Your task to perform on an android device: change the clock display to show seconds Image 0: 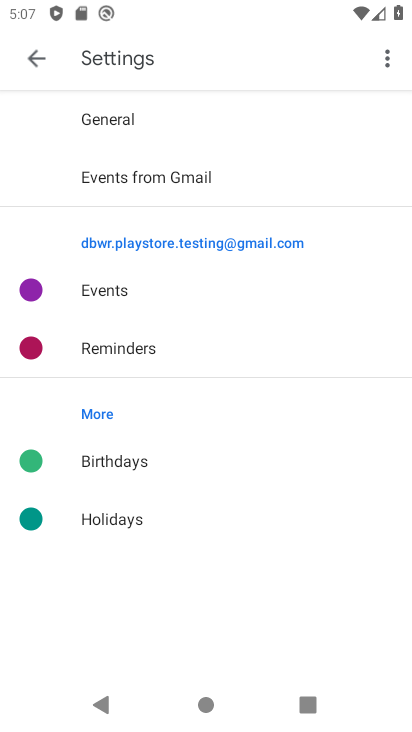
Step 0: press home button
Your task to perform on an android device: change the clock display to show seconds Image 1: 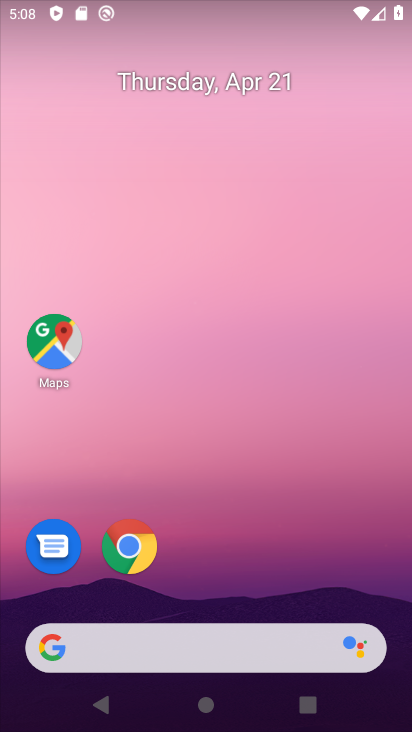
Step 1: drag from (286, 571) to (301, 53)
Your task to perform on an android device: change the clock display to show seconds Image 2: 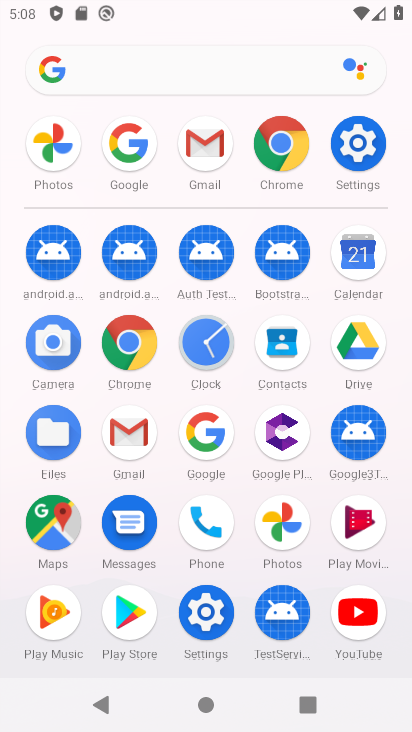
Step 2: click (215, 339)
Your task to perform on an android device: change the clock display to show seconds Image 3: 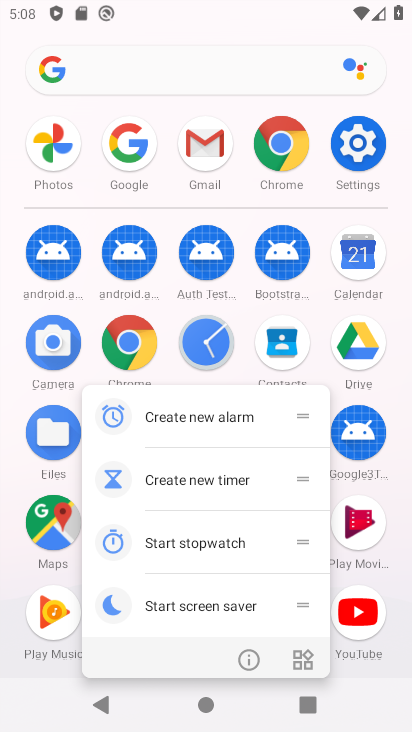
Step 3: click (208, 346)
Your task to perform on an android device: change the clock display to show seconds Image 4: 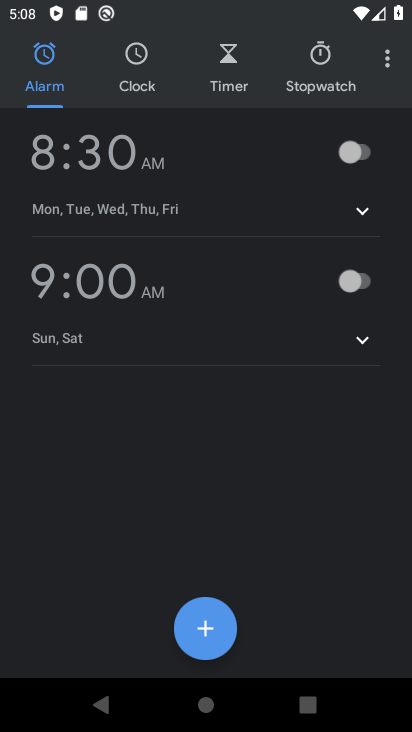
Step 4: click (385, 61)
Your task to perform on an android device: change the clock display to show seconds Image 5: 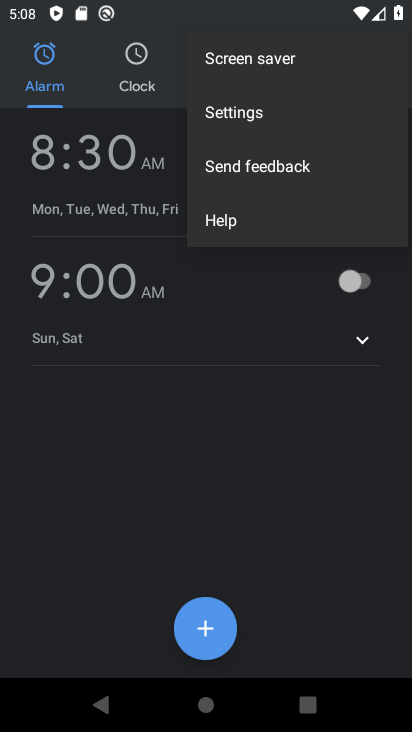
Step 5: click (250, 116)
Your task to perform on an android device: change the clock display to show seconds Image 6: 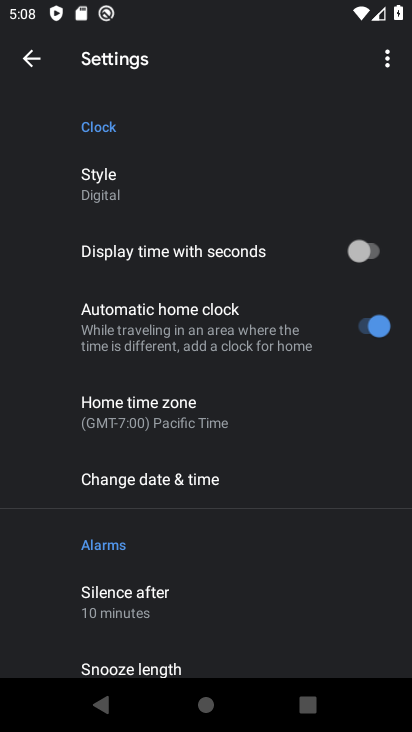
Step 6: click (375, 250)
Your task to perform on an android device: change the clock display to show seconds Image 7: 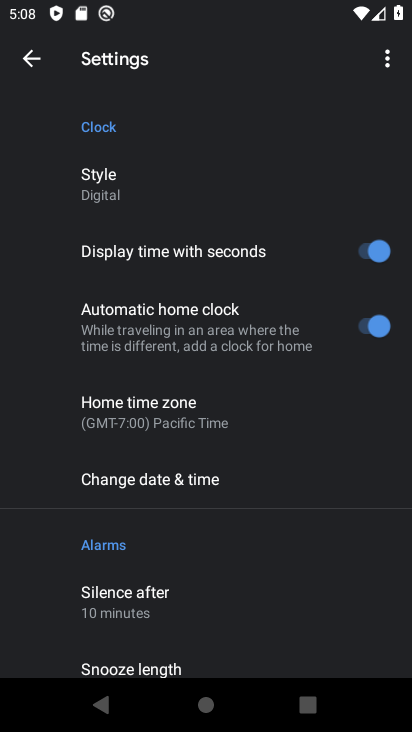
Step 7: task complete